Your task to perform on an android device: Open Youtube and go to "Your channel" Image 0: 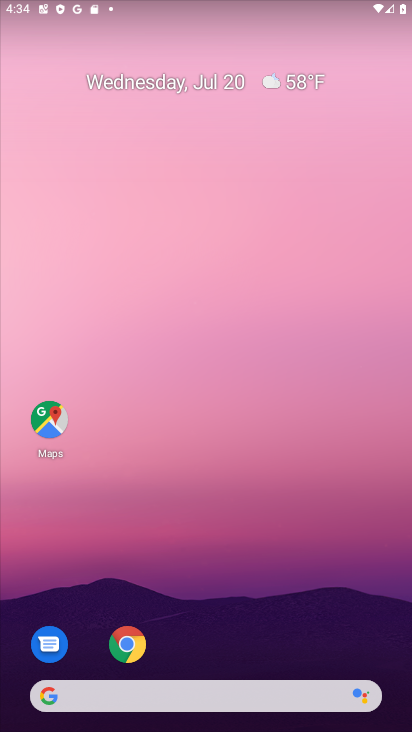
Step 0: press home button
Your task to perform on an android device: Open Youtube and go to "Your channel" Image 1: 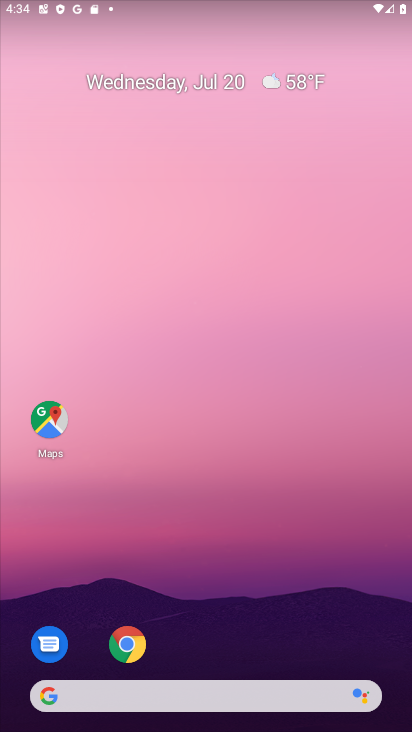
Step 1: drag from (268, 320) to (269, 101)
Your task to perform on an android device: Open Youtube and go to "Your channel" Image 2: 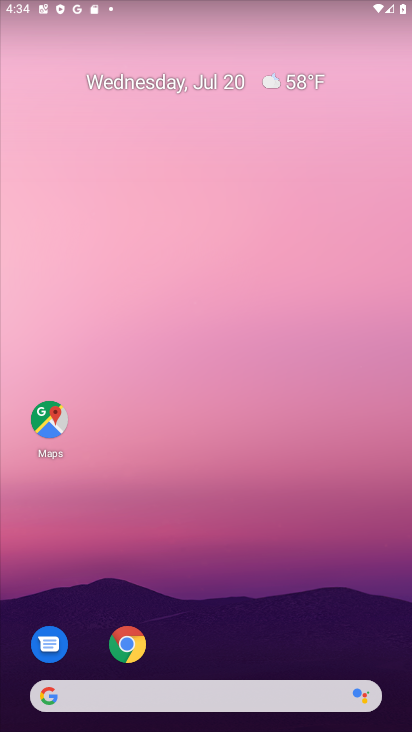
Step 2: drag from (271, 574) to (258, 6)
Your task to perform on an android device: Open Youtube and go to "Your channel" Image 3: 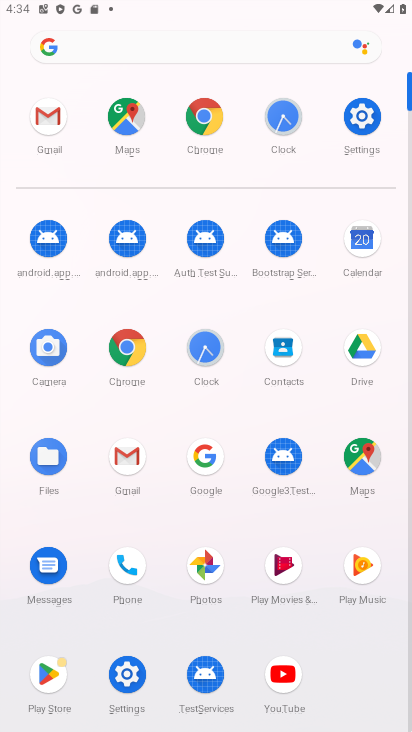
Step 3: click (283, 672)
Your task to perform on an android device: Open Youtube and go to "Your channel" Image 4: 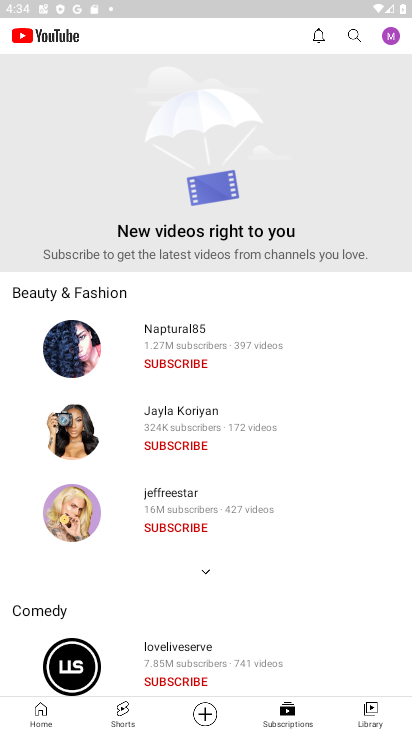
Step 4: click (391, 33)
Your task to perform on an android device: Open Youtube and go to "Your channel" Image 5: 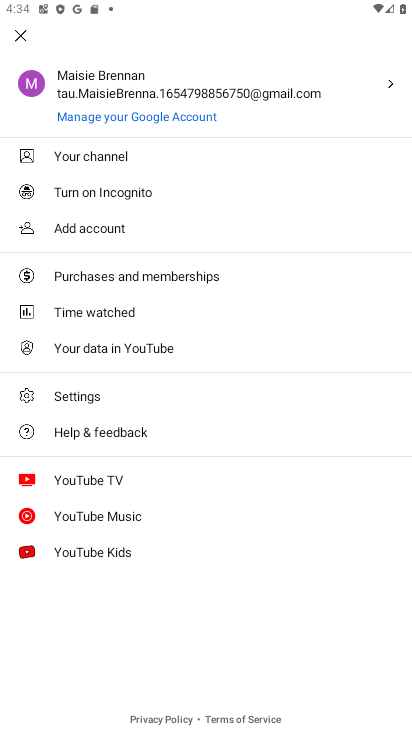
Step 5: click (79, 157)
Your task to perform on an android device: Open Youtube and go to "Your channel" Image 6: 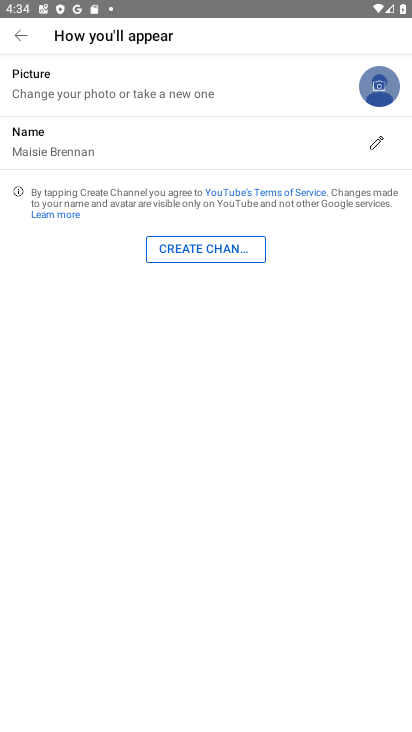
Step 6: task complete